Your task to perform on an android device: Go to Wikipedia Image 0: 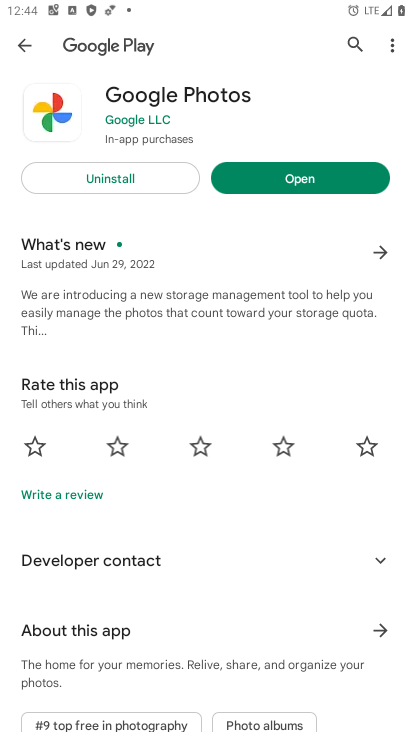
Step 0: press home button
Your task to perform on an android device: Go to Wikipedia Image 1: 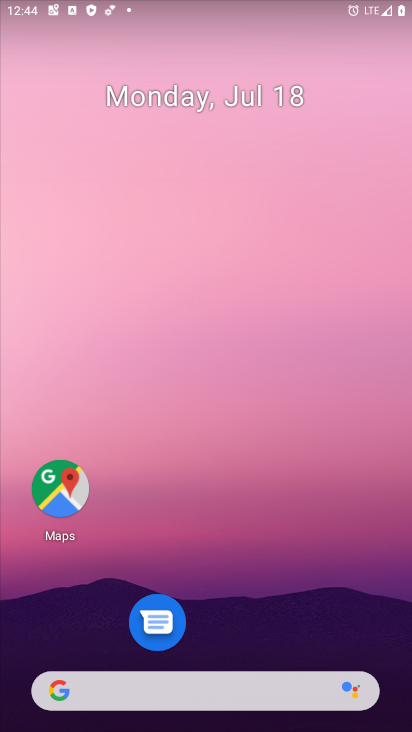
Step 1: click (217, 696)
Your task to perform on an android device: Go to Wikipedia Image 2: 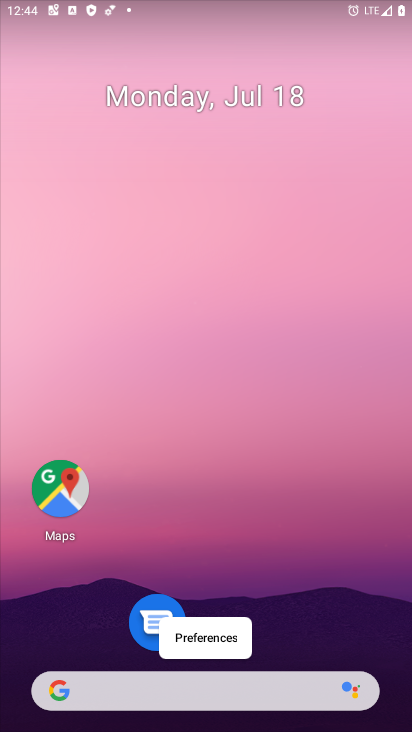
Step 2: drag from (208, 695) to (221, 30)
Your task to perform on an android device: Go to Wikipedia Image 3: 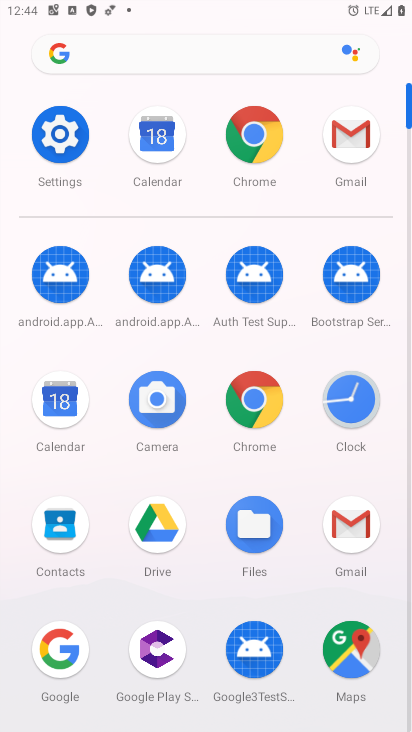
Step 3: click (157, 44)
Your task to perform on an android device: Go to Wikipedia Image 4: 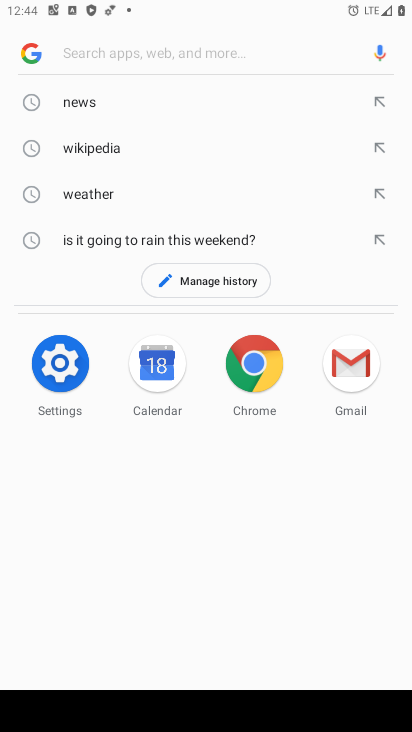
Step 4: click (109, 142)
Your task to perform on an android device: Go to Wikipedia Image 5: 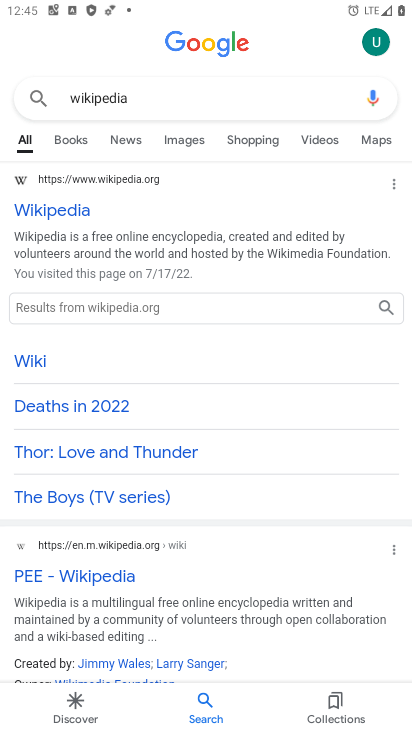
Step 5: click (52, 210)
Your task to perform on an android device: Go to Wikipedia Image 6: 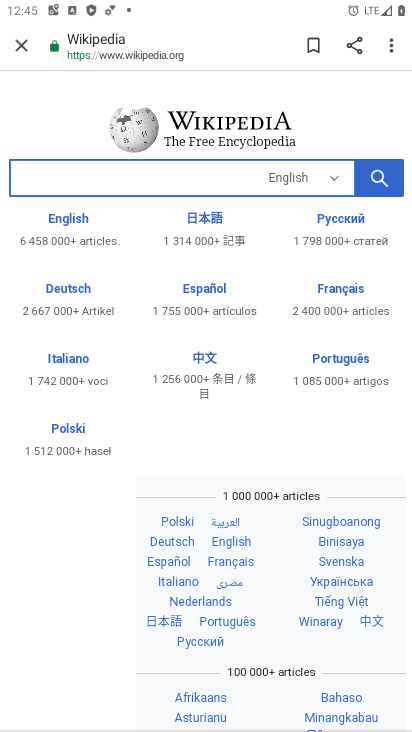
Step 6: task complete